Your task to perform on an android device: change notifications settings Image 0: 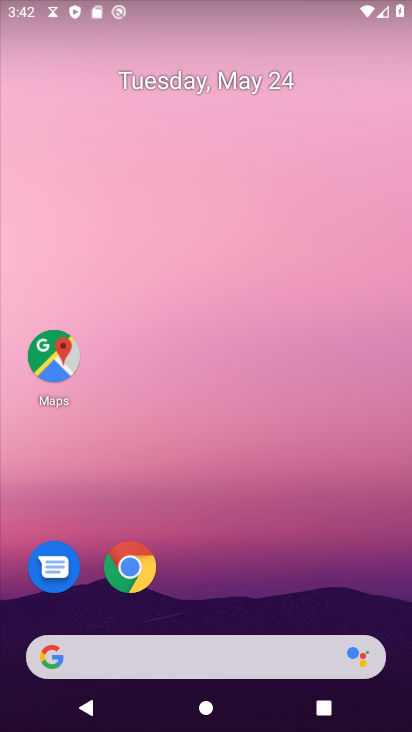
Step 0: drag from (247, 567) to (303, 308)
Your task to perform on an android device: change notifications settings Image 1: 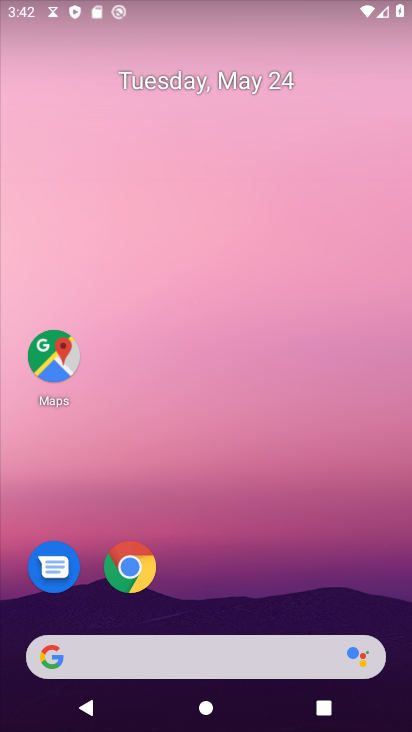
Step 1: drag from (183, 603) to (321, 111)
Your task to perform on an android device: change notifications settings Image 2: 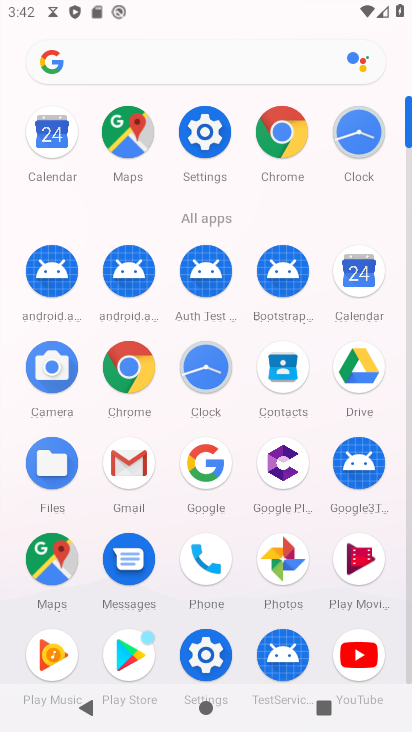
Step 2: click (196, 143)
Your task to perform on an android device: change notifications settings Image 3: 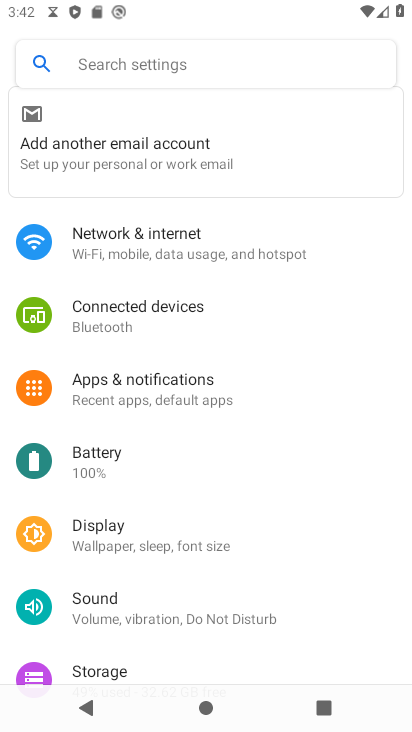
Step 3: click (182, 399)
Your task to perform on an android device: change notifications settings Image 4: 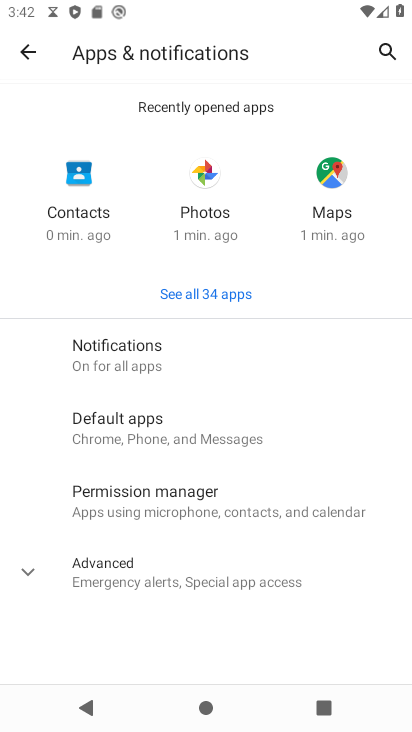
Step 4: click (171, 360)
Your task to perform on an android device: change notifications settings Image 5: 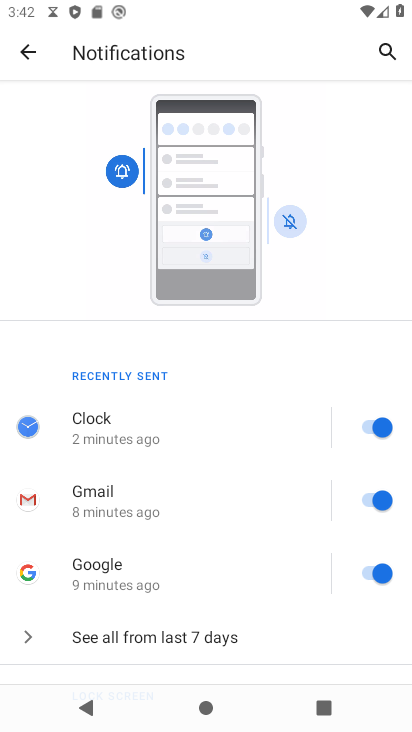
Step 5: task complete